Your task to perform on an android device: uninstall "Google Find My Device" Image 0: 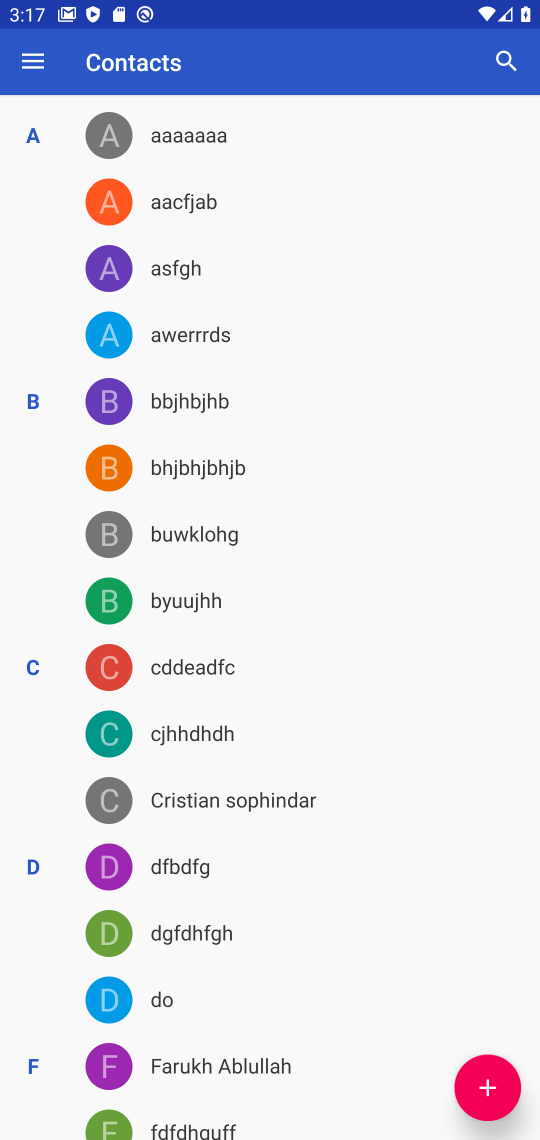
Step 0: press home button
Your task to perform on an android device: uninstall "Google Find My Device" Image 1: 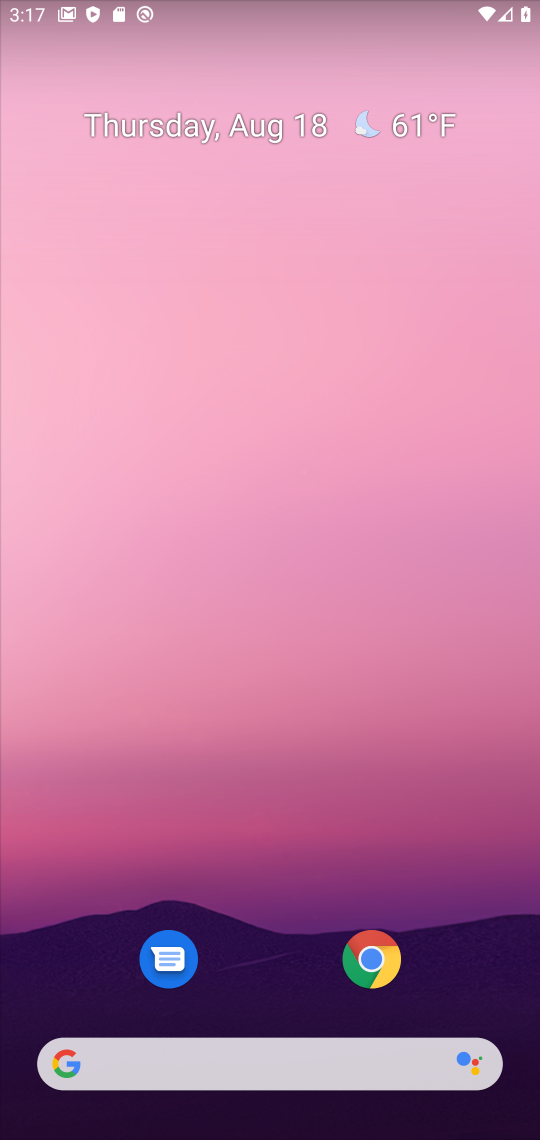
Step 1: drag from (380, 704) to (538, 585)
Your task to perform on an android device: uninstall "Google Find My Device" Image 2: 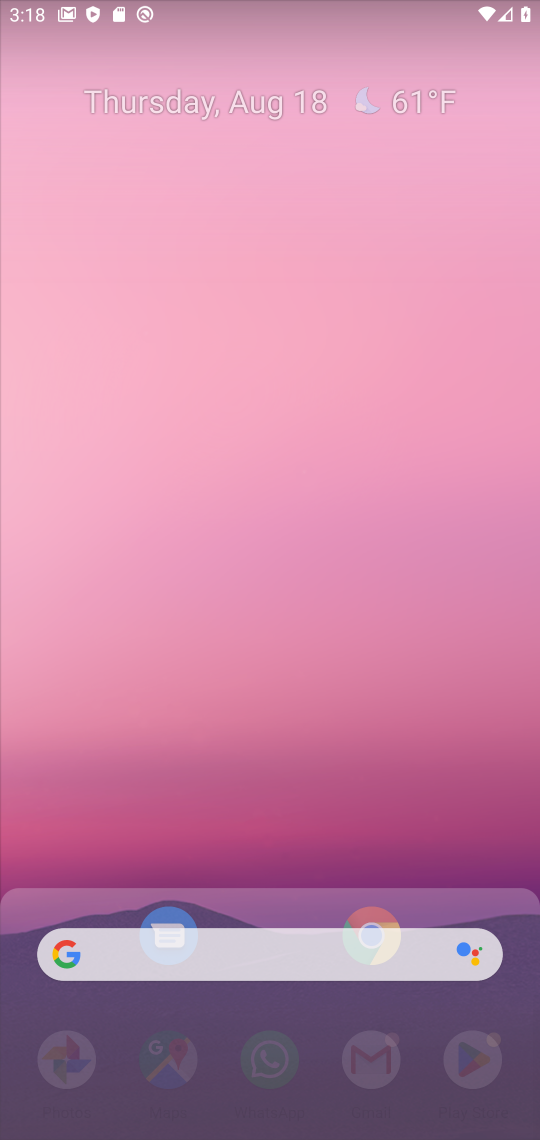
Step 2: drag from (461, 694) to (500, 187)
Your task to perform on an android device: uninstall "Google Find My Device" Image 3: 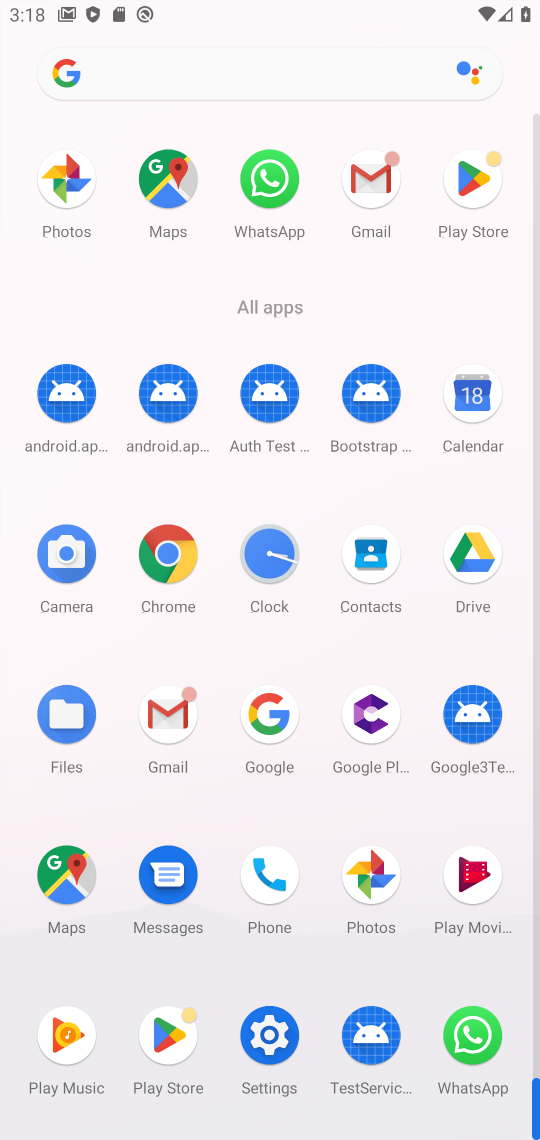
Step 3: drag from (357, 737) to (392, 339)
Your task to perform on an android device: uninstall "Google Find My Device" Image 4: 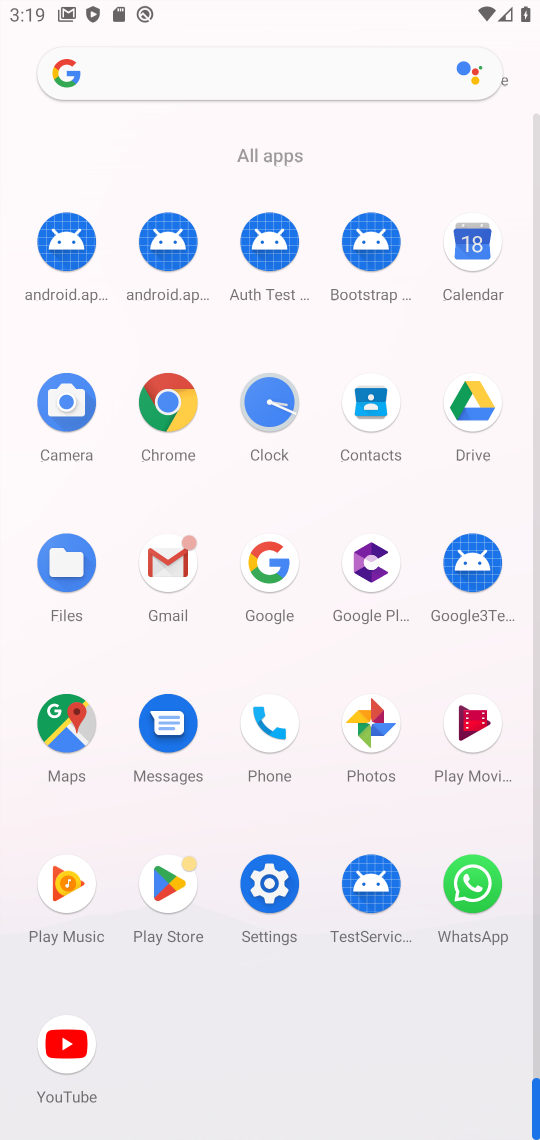
Step 4: click (170, 898)
Your task to perform on an android device: uninstall "Google Find My Device" Image 5: 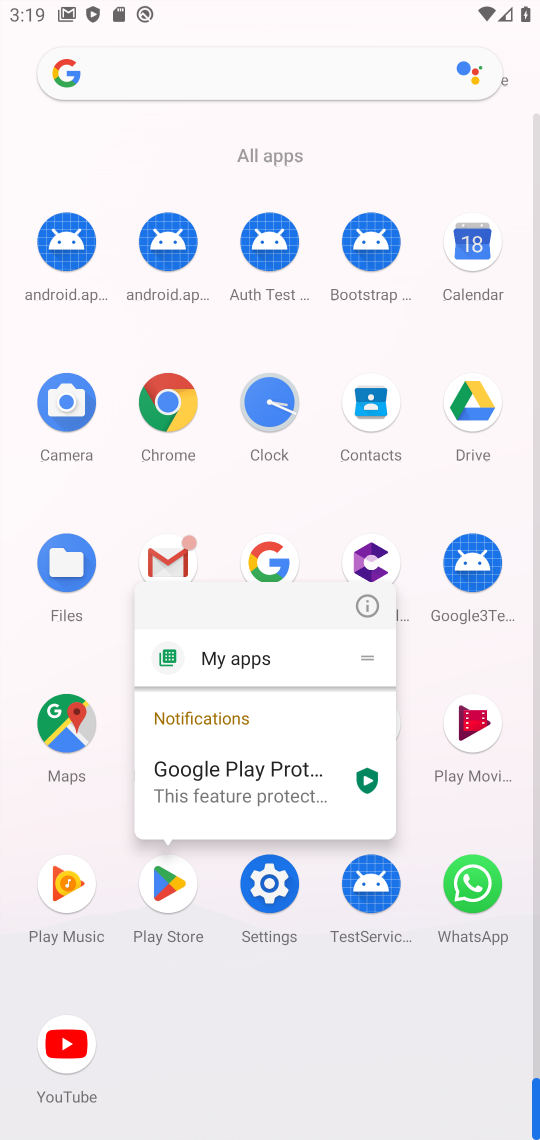
Step 5: click (343, 1032)
Your task to perform on an android device: uninstall "Google Find My Device" Image 6: 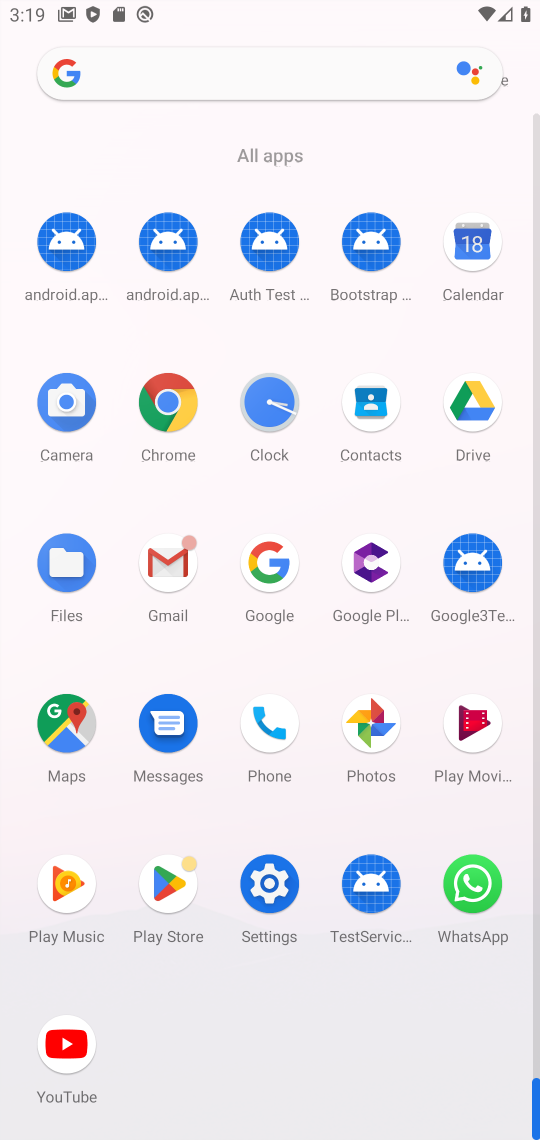
Step 6: click (165, 885)
Your task to perform on an android device: uninstall "Google Find My Device" Image 7: 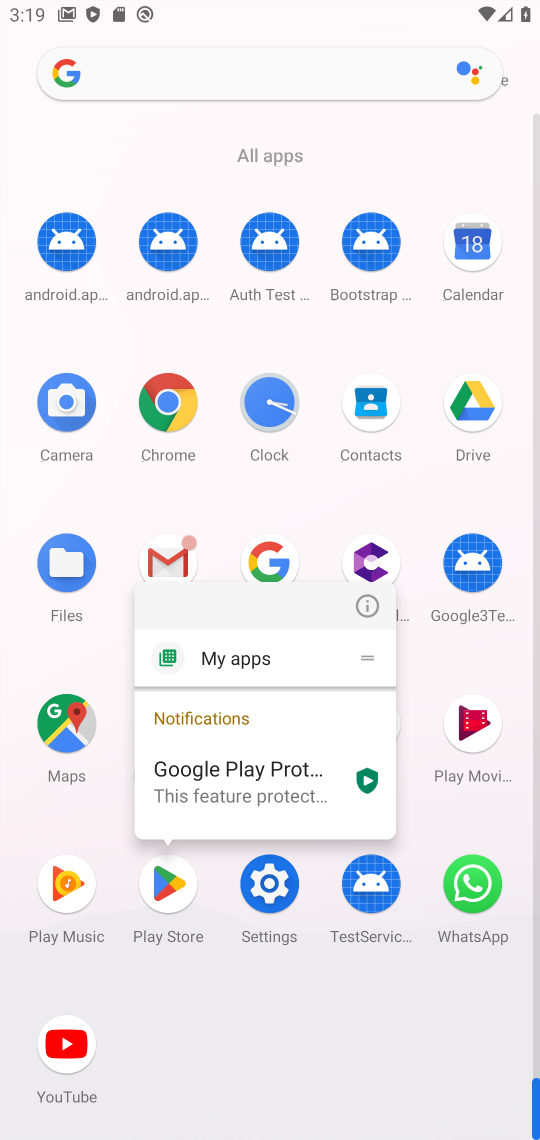
Step 7: click (171, 917)
Your task to perform on an android device: uninstall "Google Find My Device" Image 8: 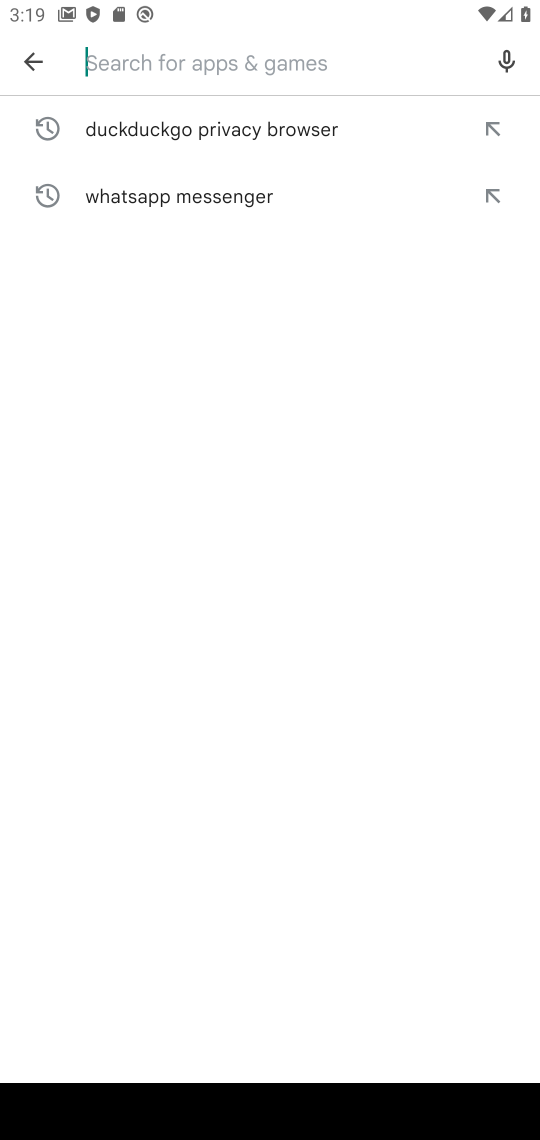
Step 8: type "Google Find My Device"
Your task to perform on an android device: uninstall "Google Find My Device" Image 9: 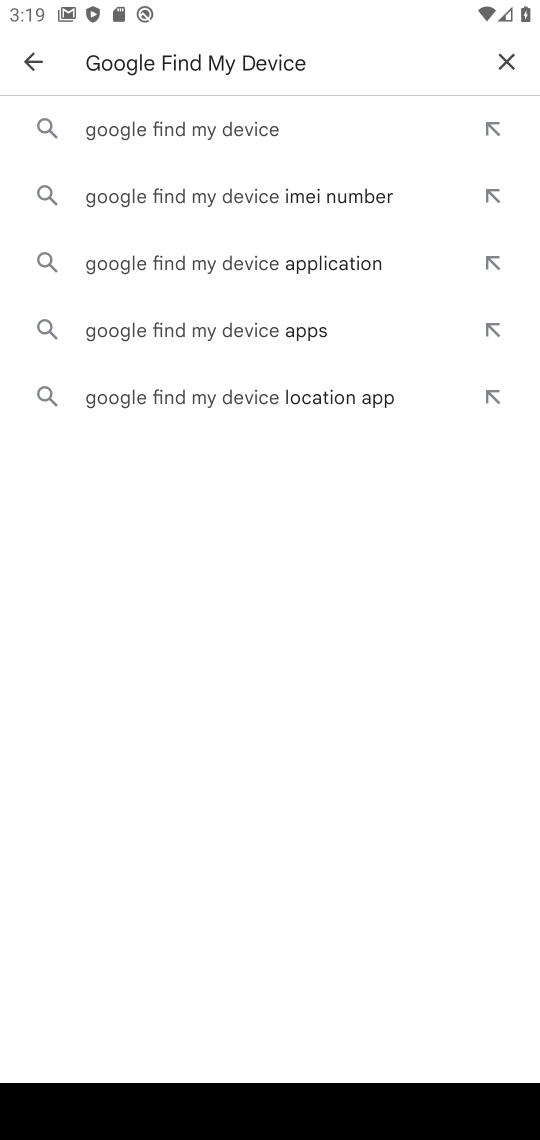
Step 9: click (328, 143)
Your task to perform on an android device: uninstall "Google Find My Device" Image 10: 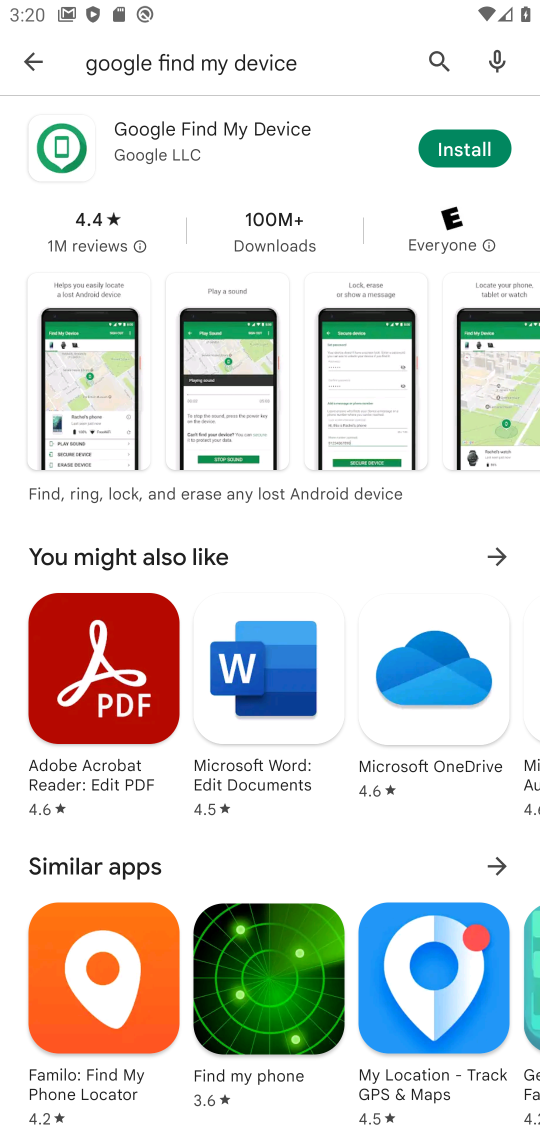
Step 10: task complete